Your task to perform on an android device: star an email in the gmail app Image 0: 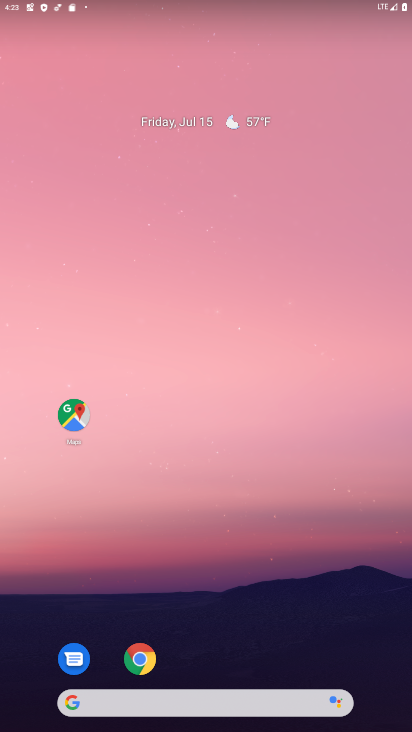
Step 0: drag from (238, 636) to (163, 169)
Your task to perform on an android device: star an email in the gmail app Image 1: 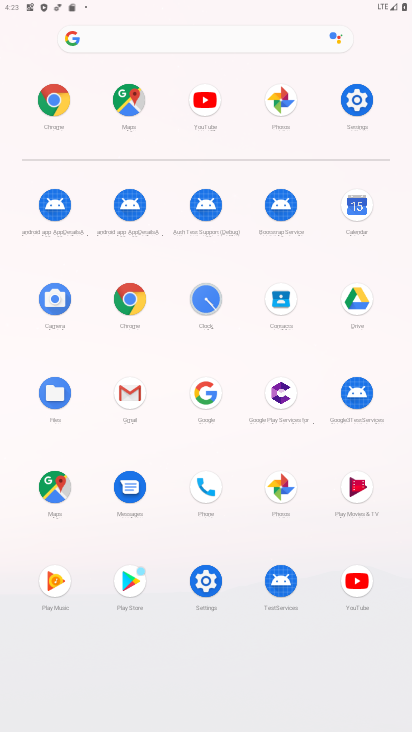
Step 1: click (139, 392)
Your task to perform on an android device: star an email in the gmail app Image 2: 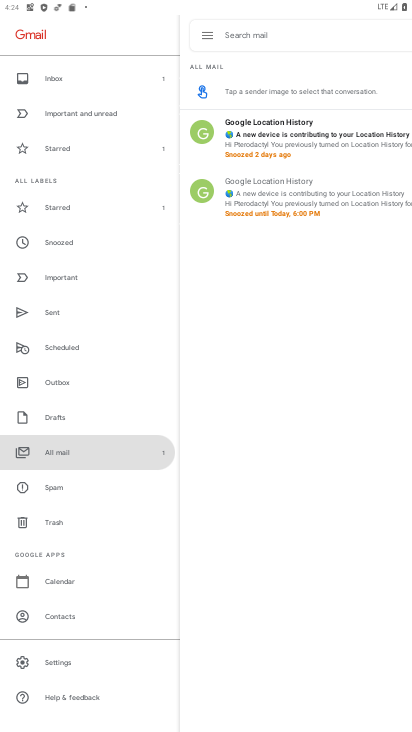
Step 2: click (86, 76)
Your task to perform on an android device: star an email in the gmail app Image 3: 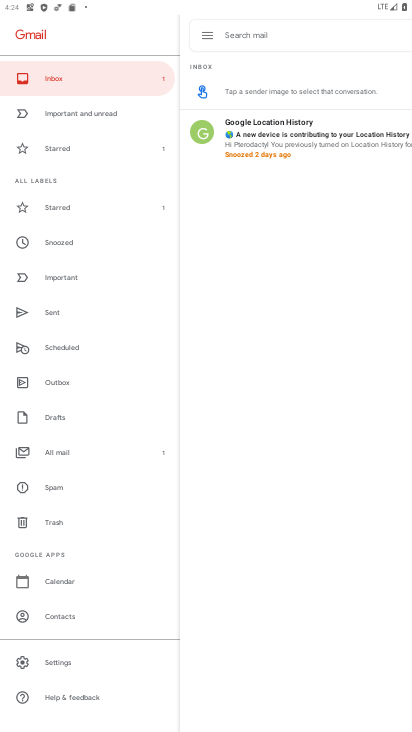
Step 3: click (205, 36)
Your task to perform on an android device: star an email in the gmail app Image 4: 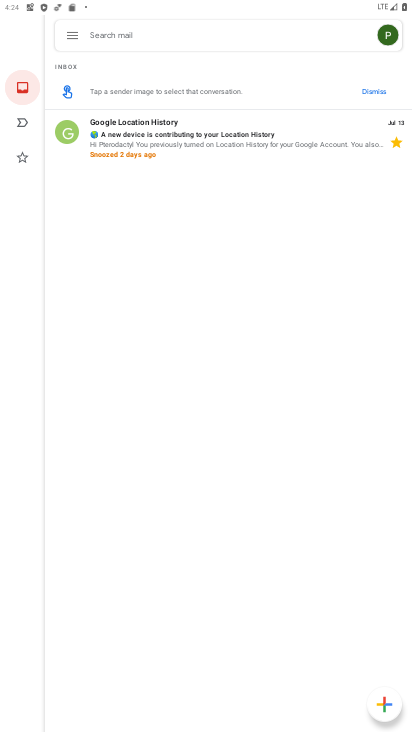
Step 4: task complete